Your task to perform on an android device: Open the web browser Image 0: 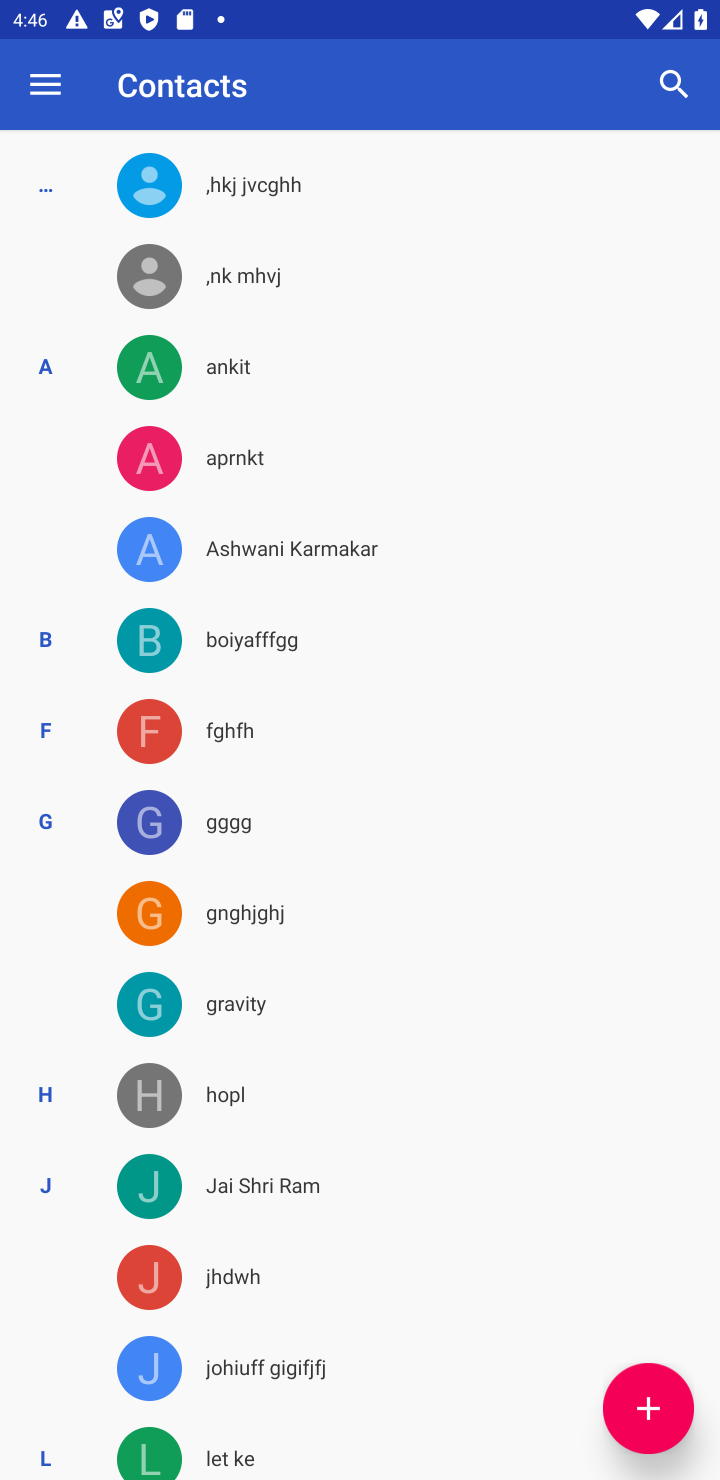
Step 0: press home button
Your task to perform on an android device: Open the web browser Image 1: 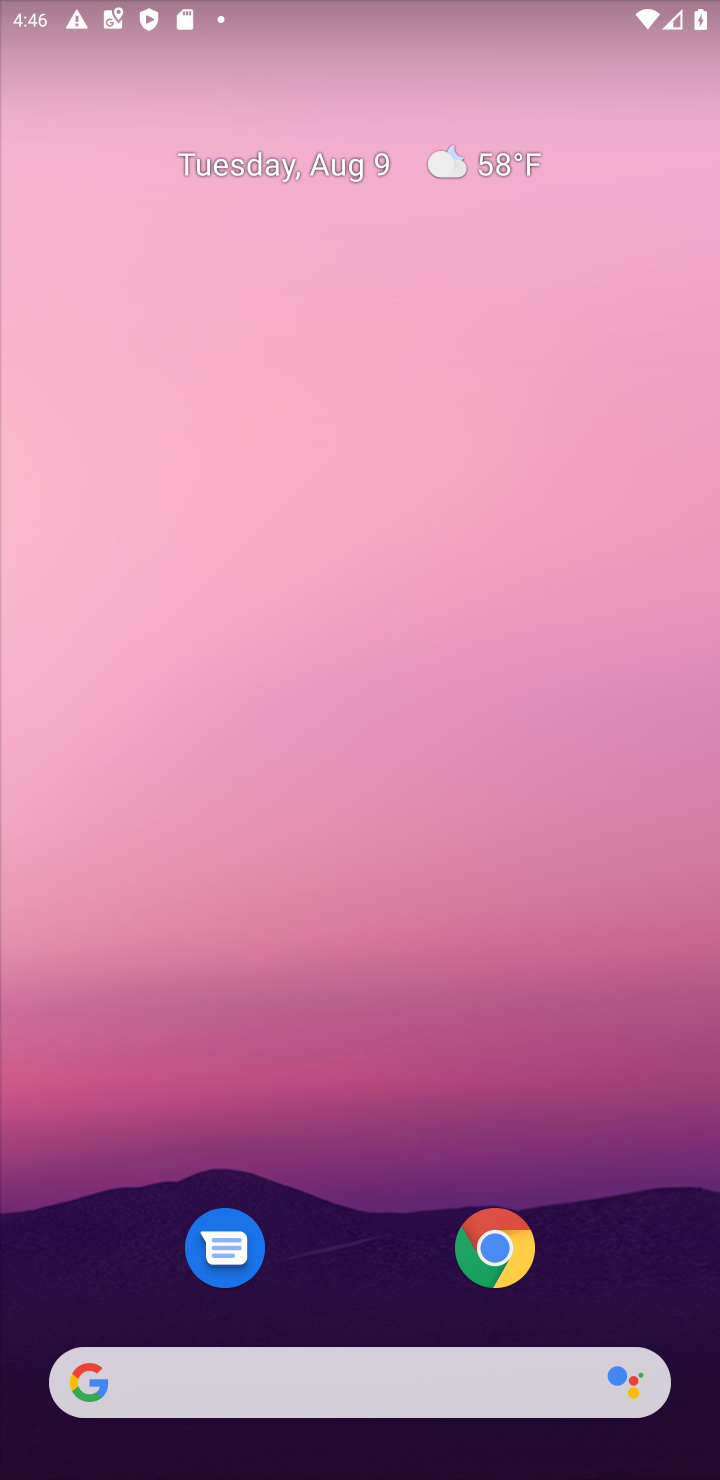
Step 1: drag from (420, 1241) to (332, 296)
Your task to perform on an android device: Open the web browser Image 2: 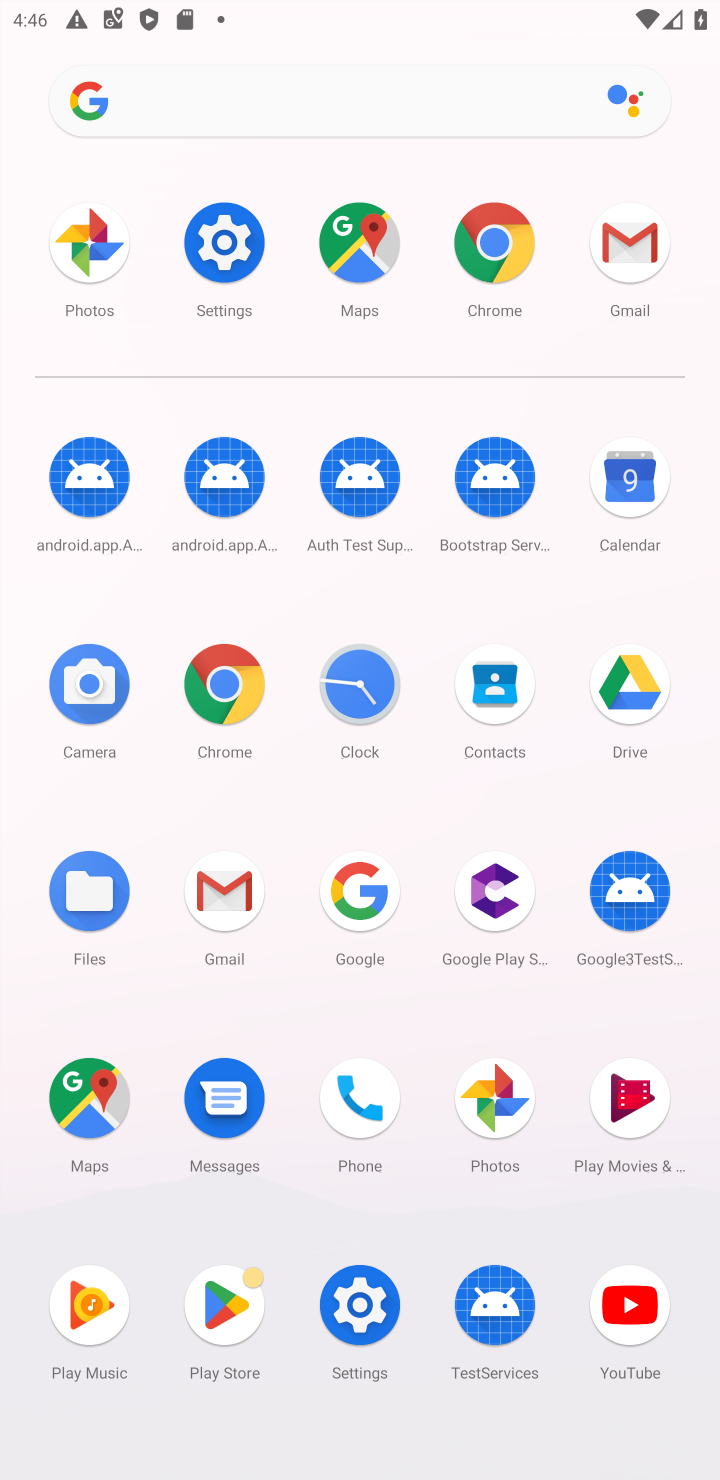
Step 2: click (225, 671)
Your task to perform on an android device: Open the web browser Image 3: 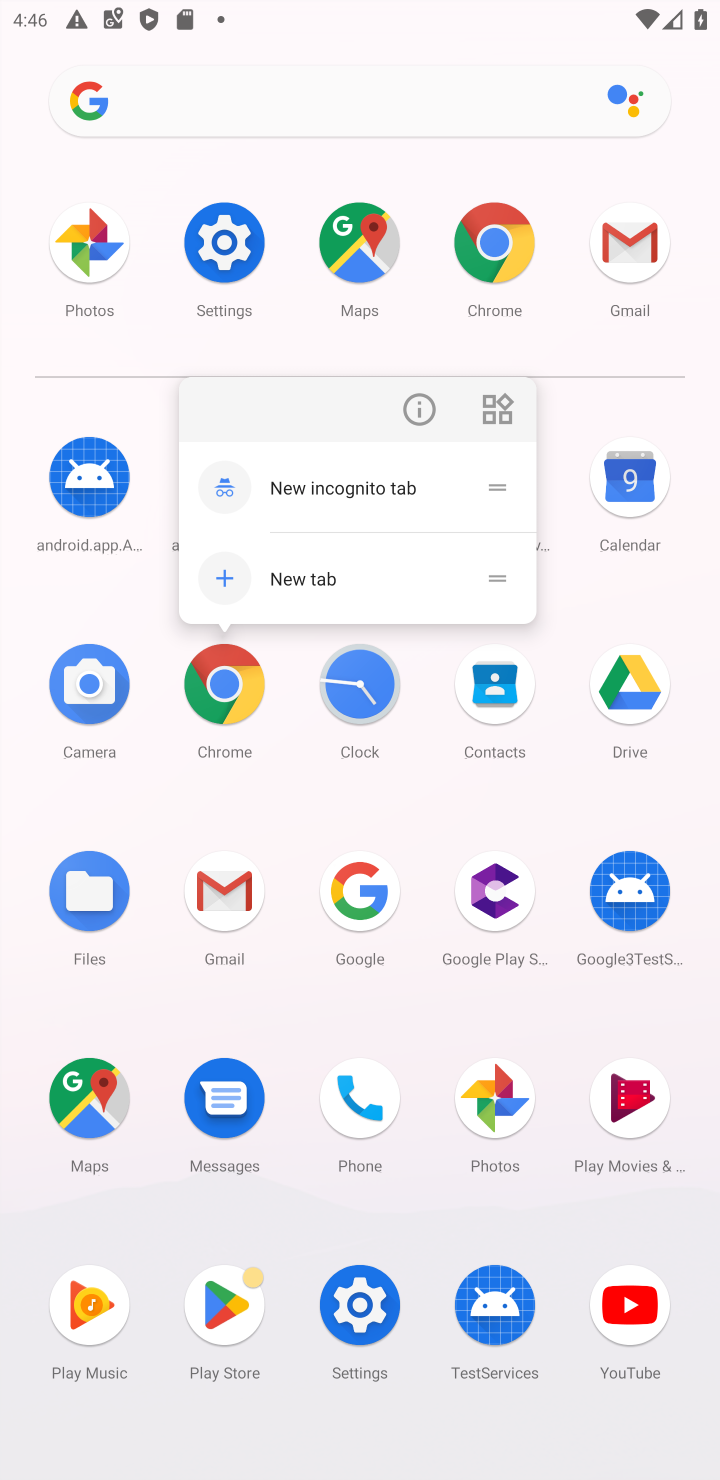
Step 3: click (223, 687)
Your task to perform on an android device: Open the web browser Image 4: 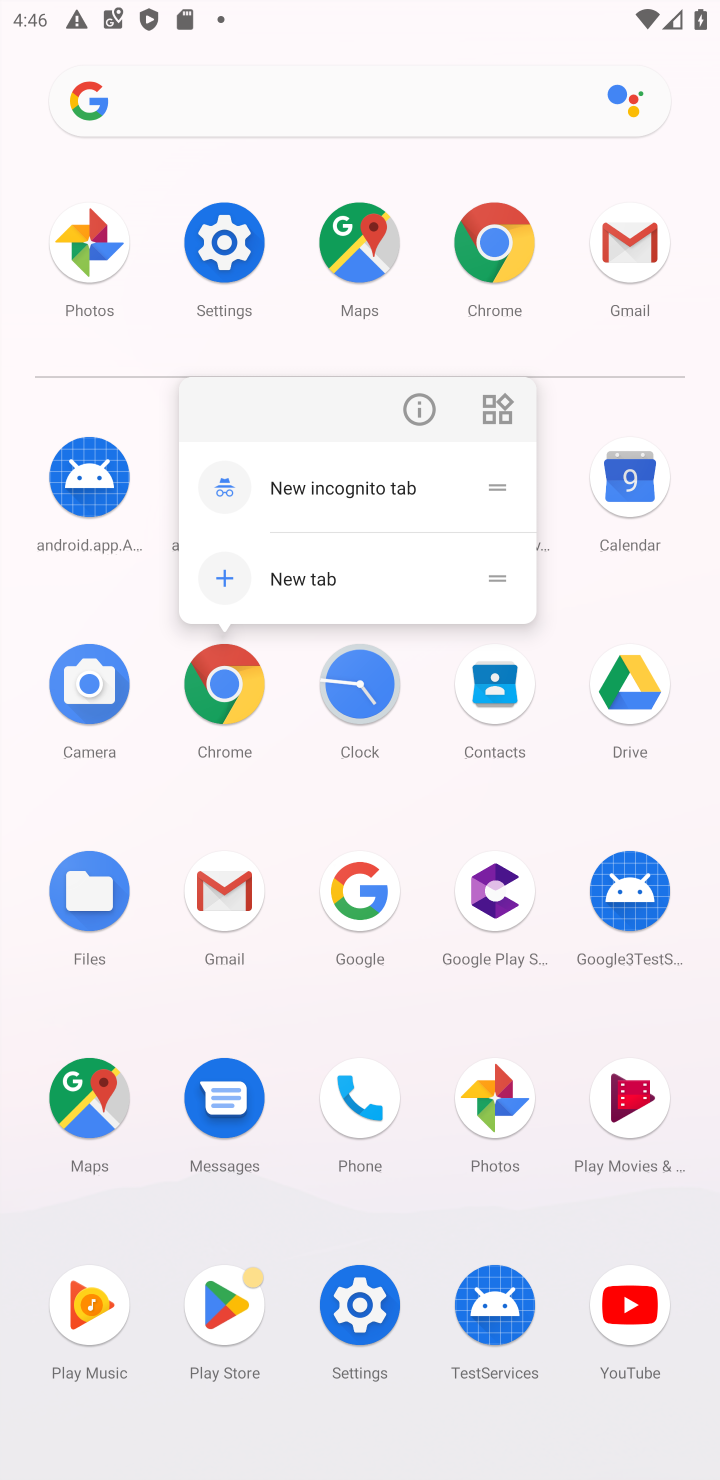
Step 4: click (223, 687)
Your task to perform on an android device: Open the web browser Image 5: 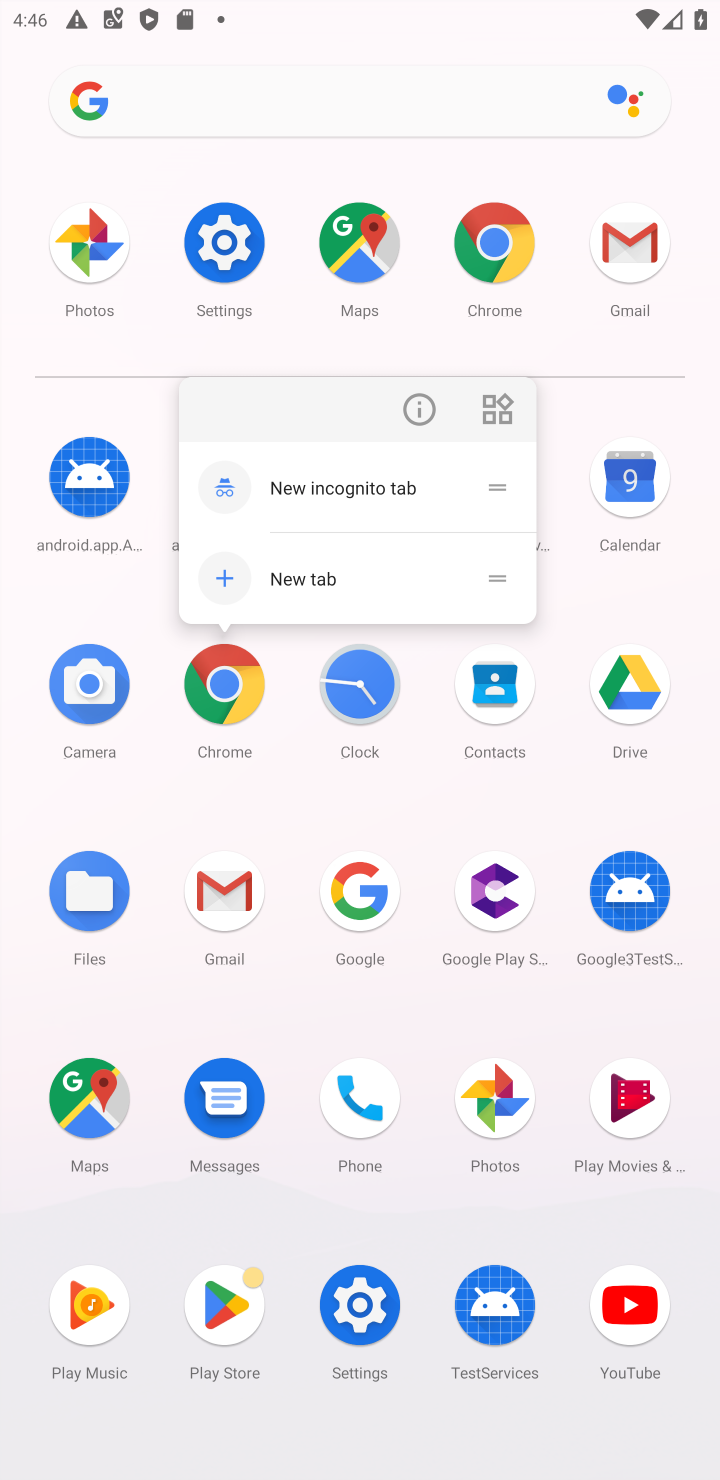
Step 5: click (223, 687)
Your task to perform on an android device: Open the web browser Image 6: 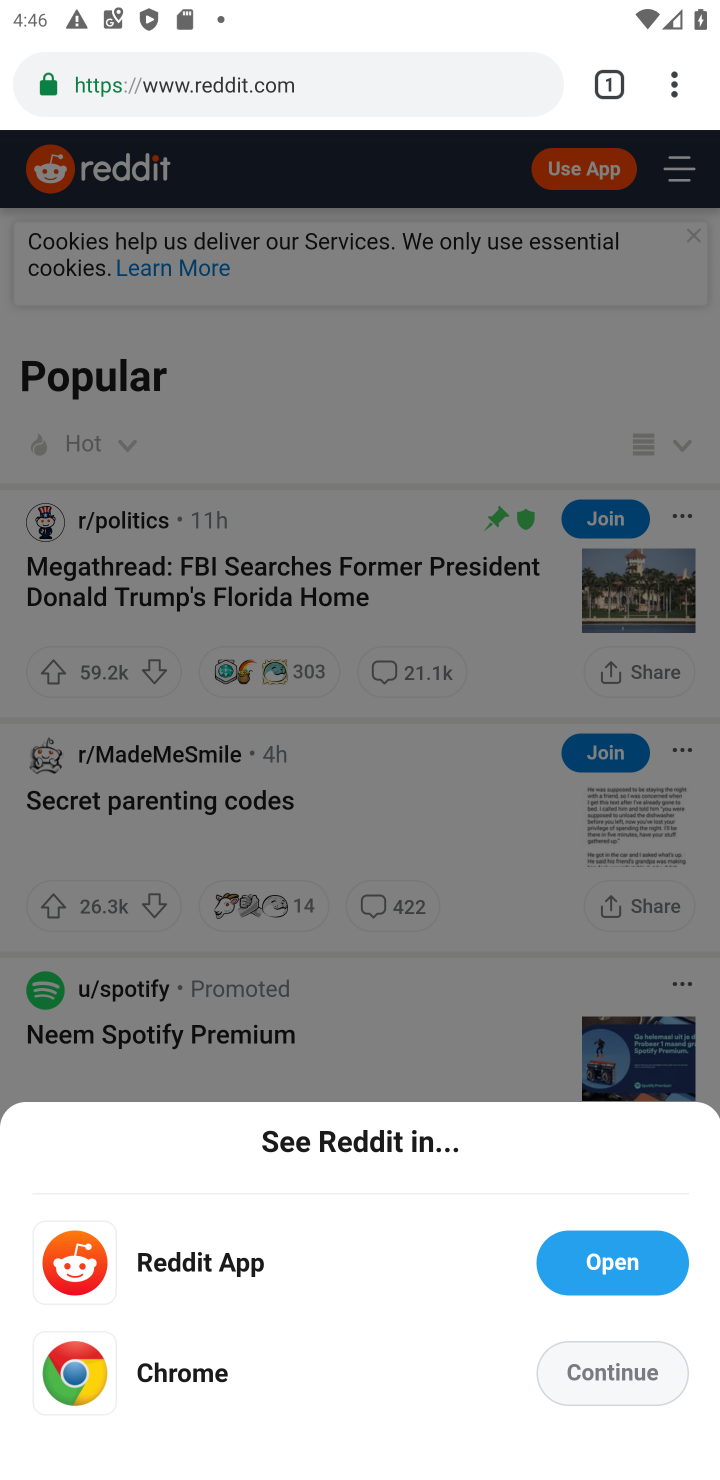
Step 6: task complete